Your task to perform on an android device: Turn off the flashlight Image 0: 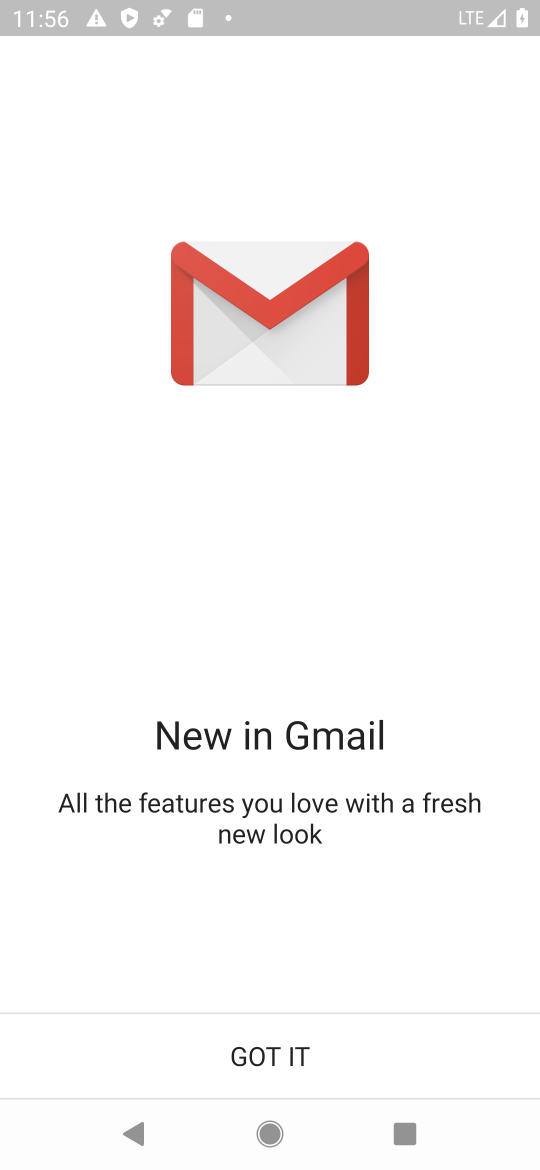
Step 0: press home button
Your task to perform on an android device: Turn off the flashlight Image 1: 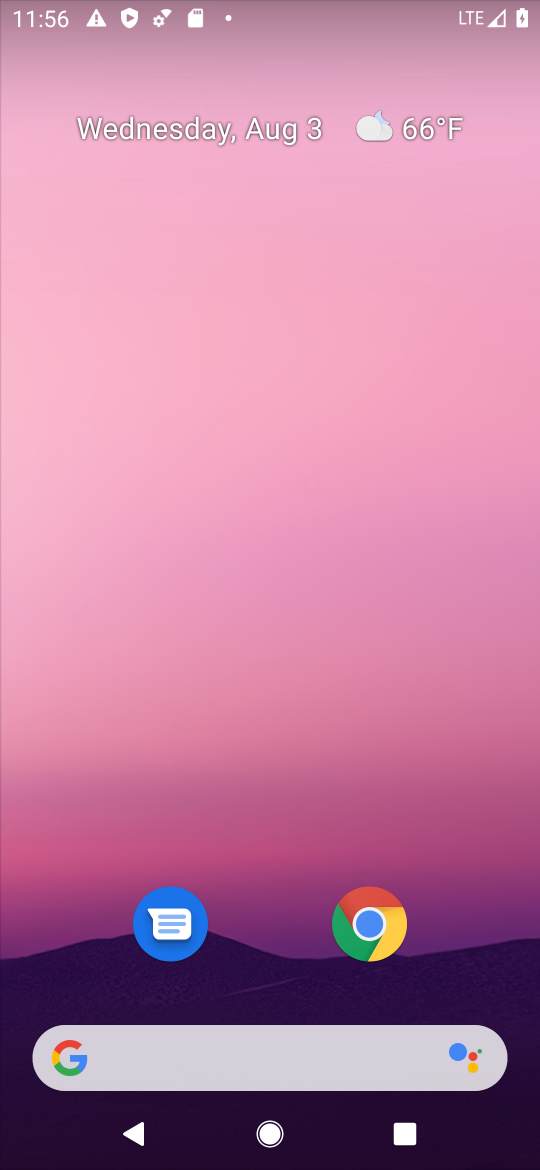
Step 1: drag from (133, 958) to (255, 286)
Your task to perform on an android device: Turn off the flashlight Image 2: 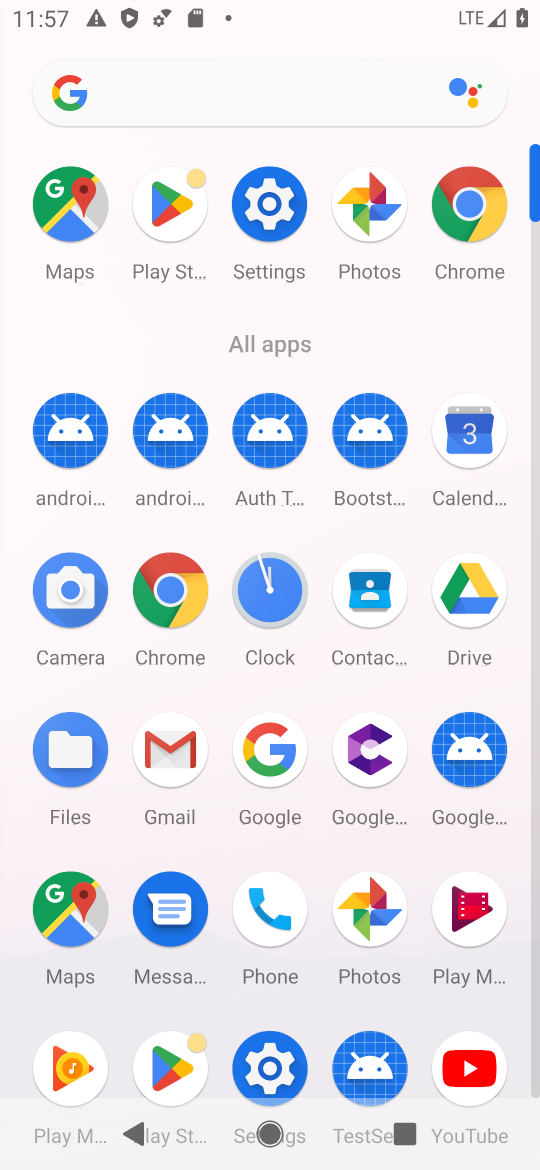
Step 2: click (255, 1074)
Your task to perform on an android device: Turn off the flashlight Image 3: 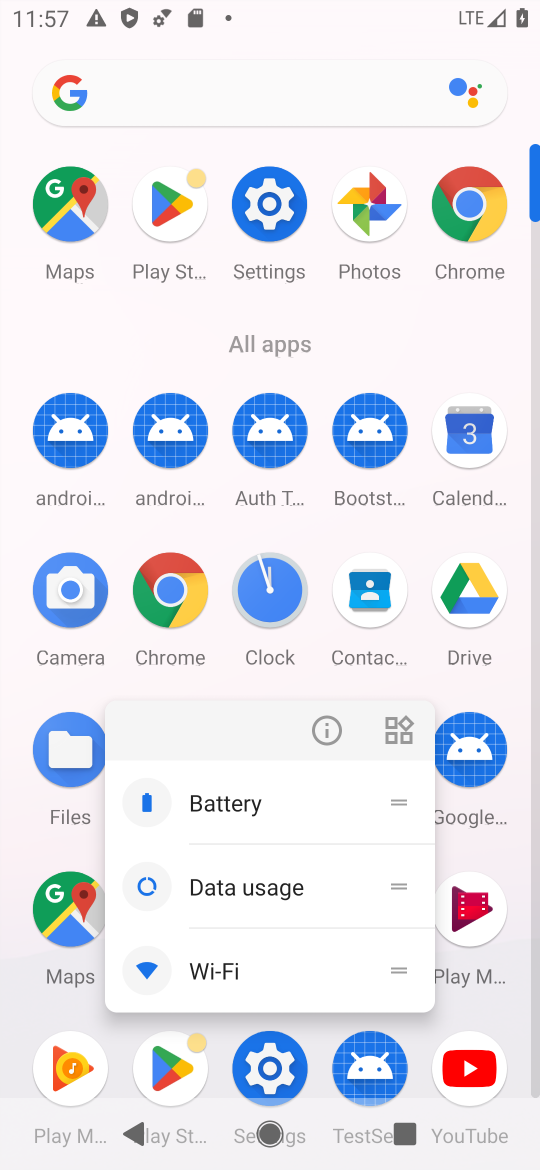
Step 3: task complete